Your task to perform on an android device: toggle show notifications on the lock screen Image 0: 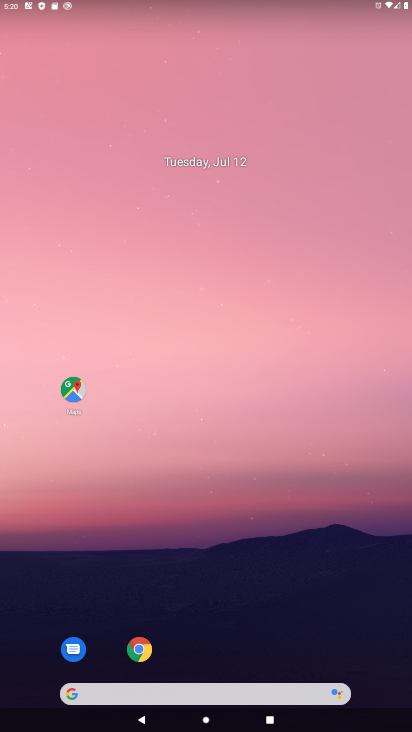
Step 0: drag from (217, 688) to (255, 75)
Your task to perform on an android device: toggle show notifications on the lock screen Image 1: 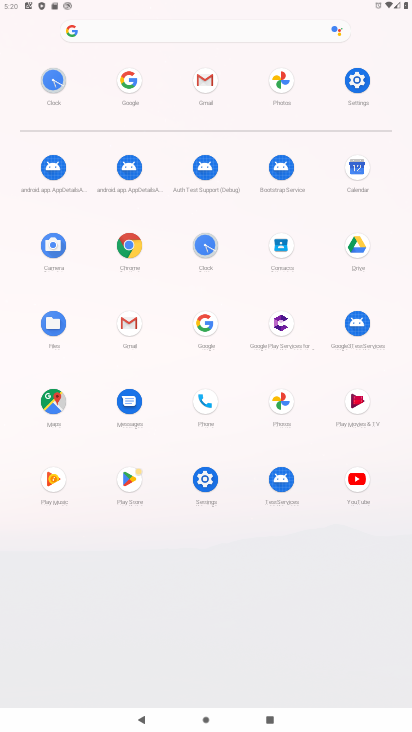
Step 1: click (357, 81)
Your task to perform on an android device: toggle show notifications on the lock screen Image 2: 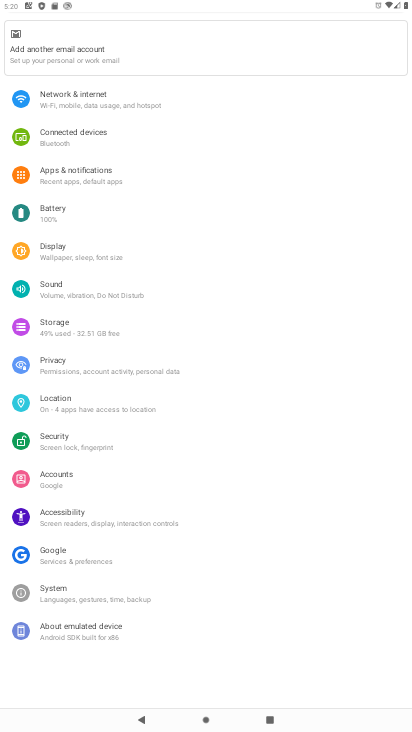
Step 2: click (76, 178)
Your task to perform on an android device: toggle show notifications on the lock screen Image 3: 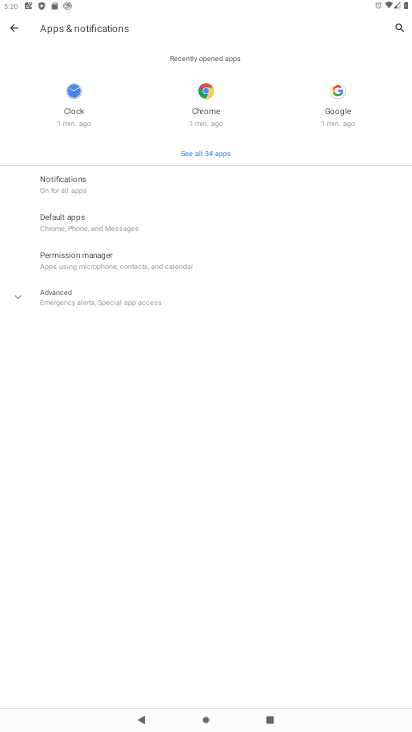
Step 3: click (75, 188)
Your task to perform on an android device: toggle show notifications on the lock screen Image 4: 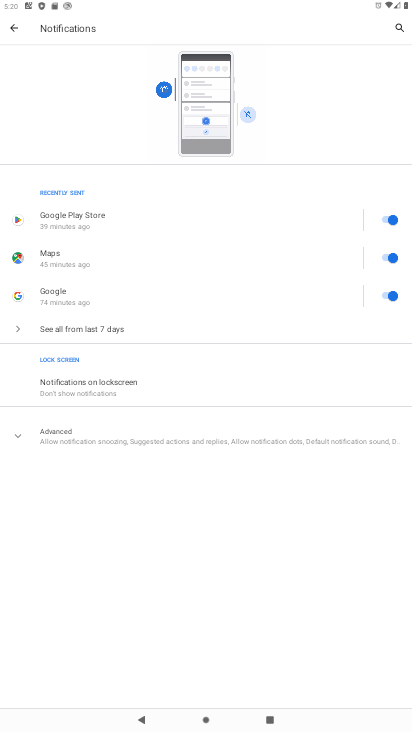
Step 4: click (105, 385)
Your task to perform on an android device: toggle show notifications on the lock screen Image 5: 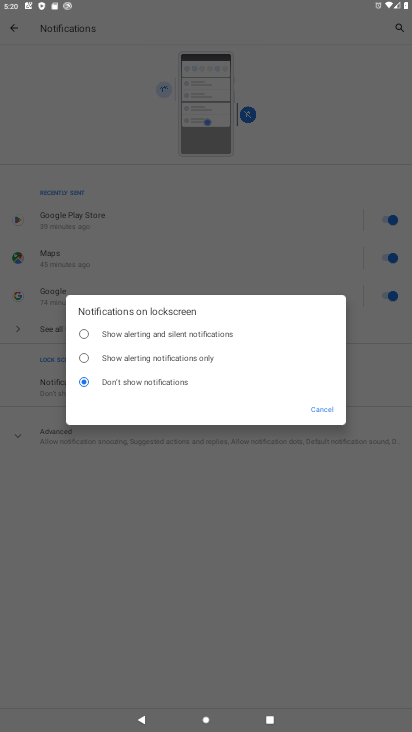
Step 5: click (86, 331)
Your task to perform on an android device: toggle show notifications on the lock screen Image 6: 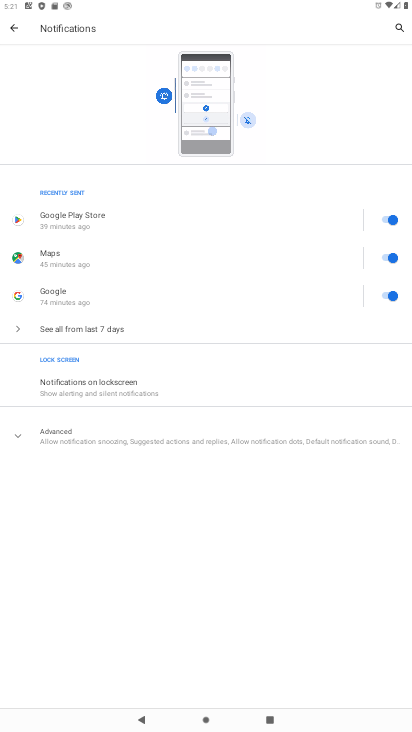
Step 6: task complete